Your task to perform on an android device: open chrome privacy settings Image 0: 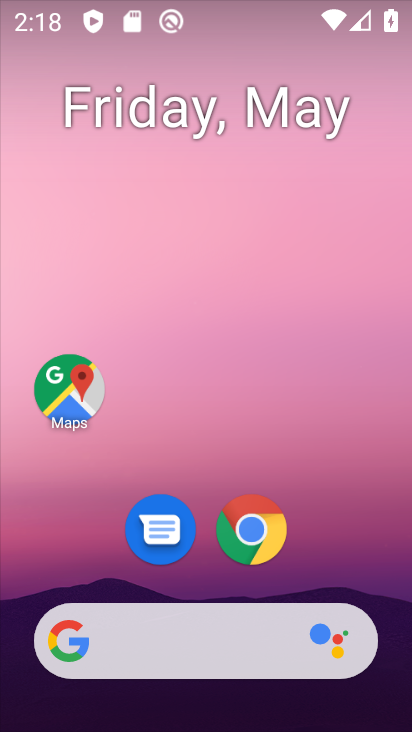
Step 0: click (264, 521)
Your task to perform on an android device: open chrome privacy settings Image 1: 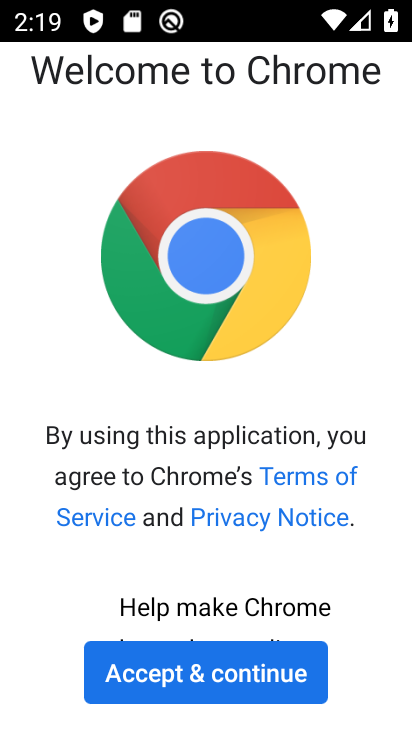
Step 1: click (213, 679)
Your task to perform on an android device: open chrome privacy settings Image 2: 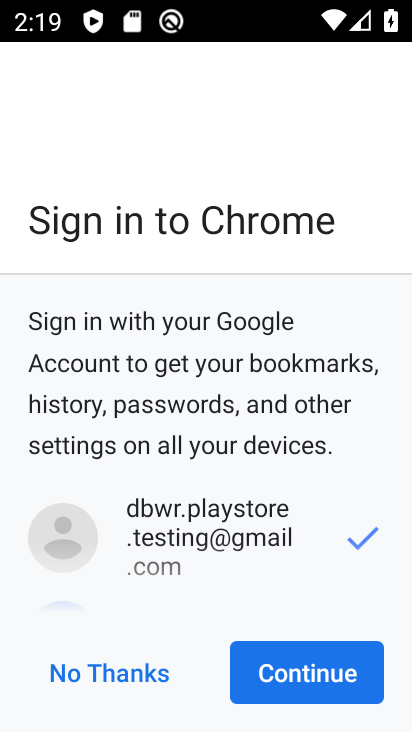
Step 2: click (300, 679)
Your task to perform on an android device: open chrome privacy settings Image 3: 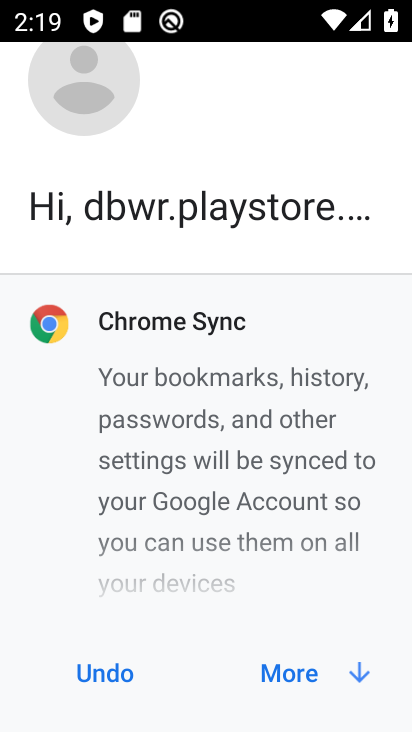
Step 3: click (300, 680)
Your task to perform on an android device: open chrome privacy settings Image 4: 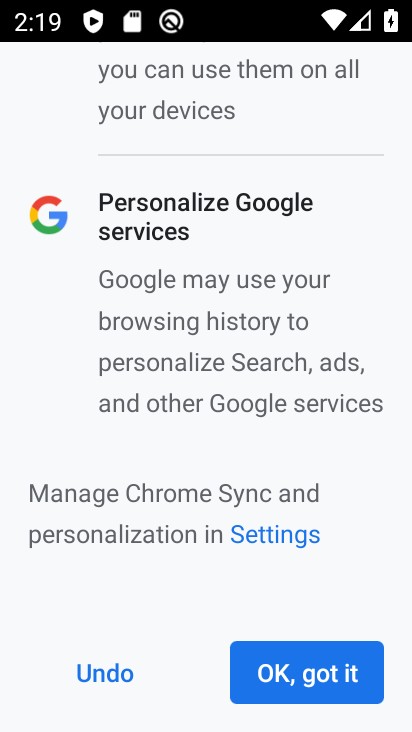
Step 4: click (300, 680)
Your task to perform on an android device: open chrome privacy settings Image 5: 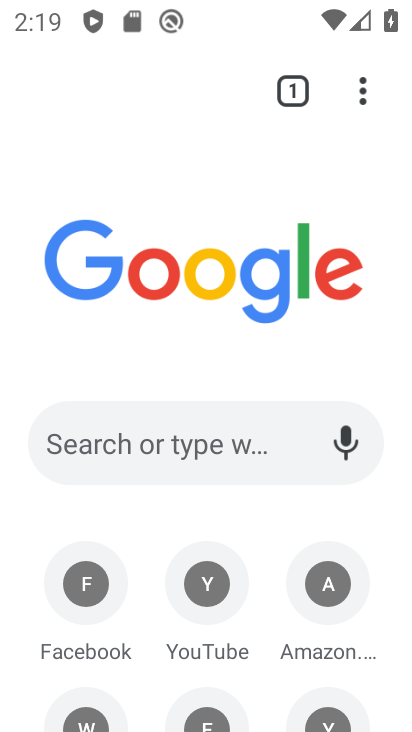
Step 5: task complete